Your task to perform on an android device: set the stopwatch Image 0: 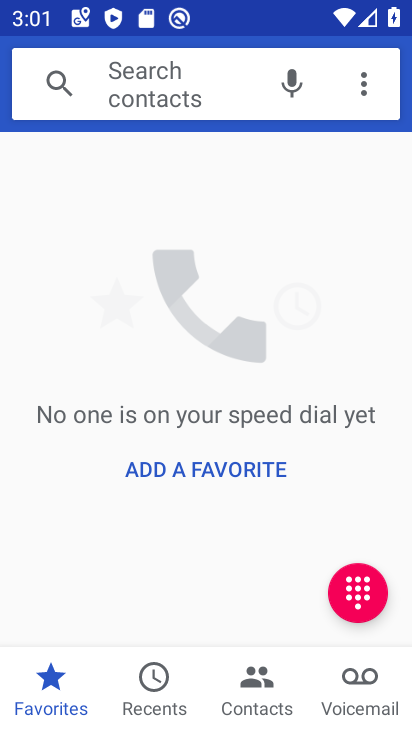
Step 0: press home button
Your task to perform on an android device: set the stopwatch Image 1: 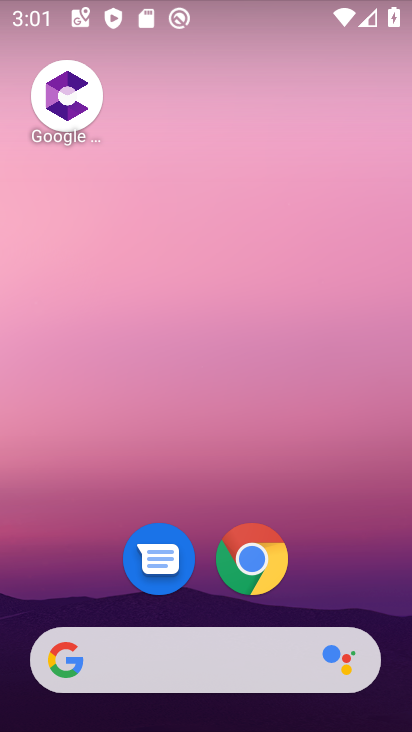
Step 1: drag from (204, 607) to (202, 314)
Your task to perform on an android device: set the stopwatch Image 2: 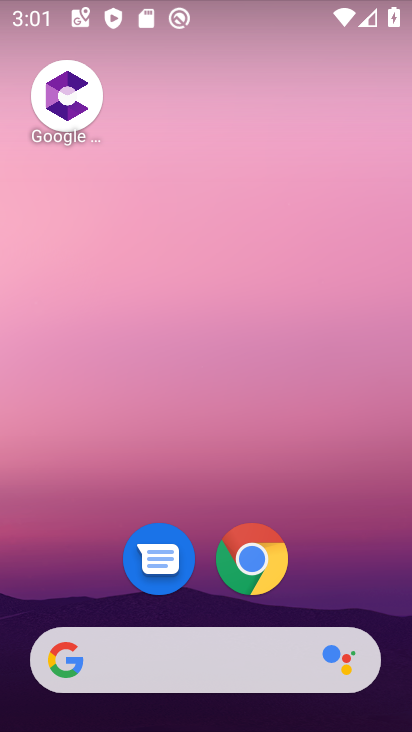
Step 2: drag from (184, 581) to (211, 244)
Your task to perform on an android device: set the stopwatch Image 3: 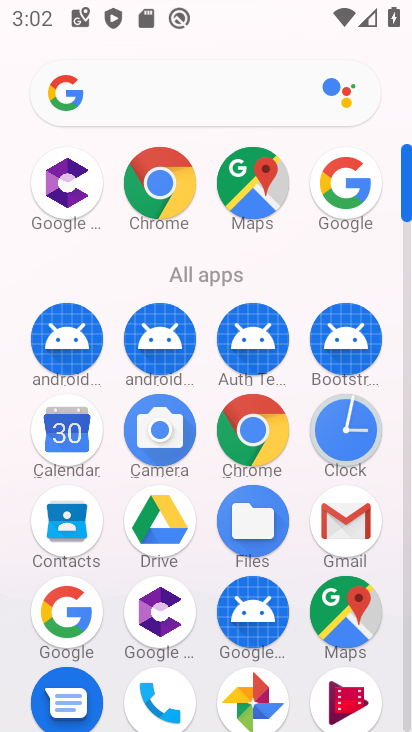
Step 3: click (351, 462)
Your task to perform on an android device: set the stopwatch Image 4: 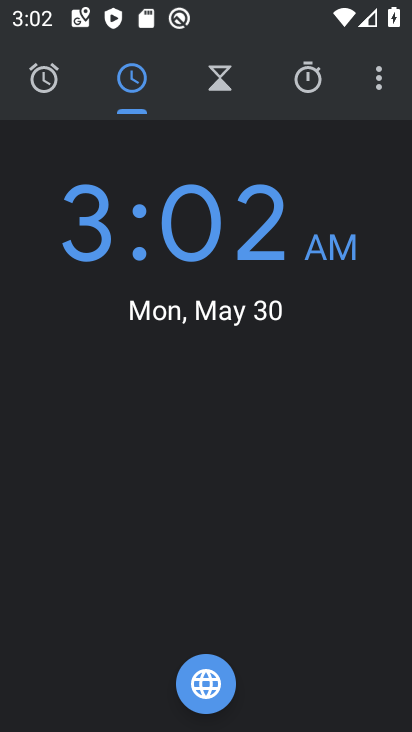
Step 4: click (316, 89)
Your task to perform on an android device: set the stopwatch Image 5: 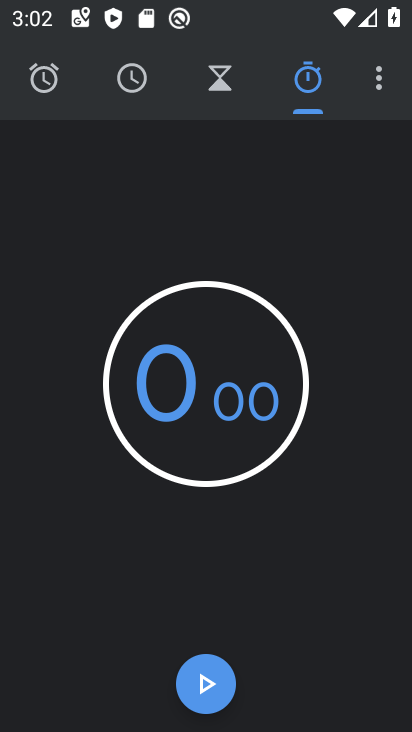
Step 5: click (209, 694)
Your task to perform on an android device: set the stopwatch Image 6: 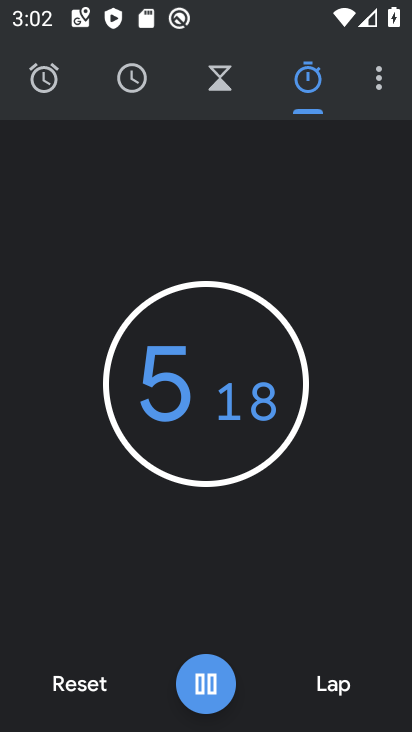
Step 6: click (210, 686)
Your task to perform on an android device: set the stopwatch Image 7: 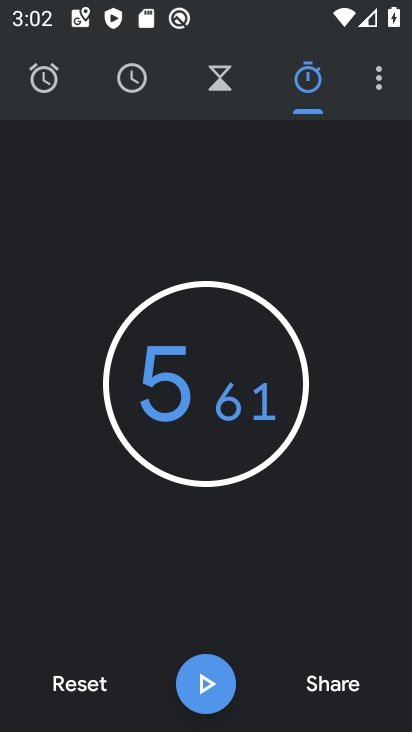
Step 7: task complete